Your task to perform on an android device: Go to settings Image 0: 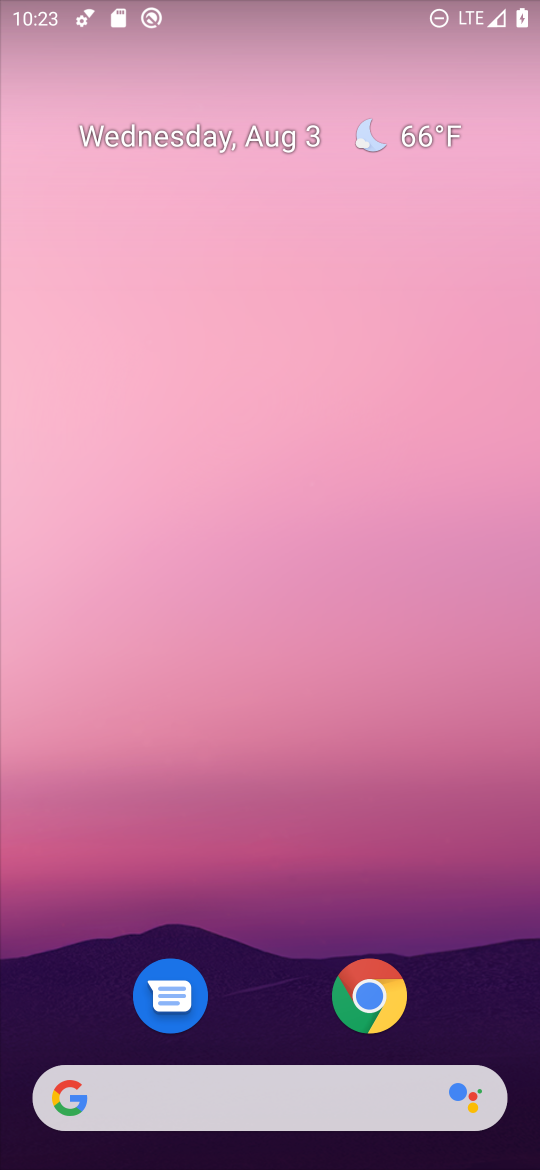
Step 0: drag from (309, 836) to (323, 107)
Your task to perform on an android device: Go to settings Image 1: 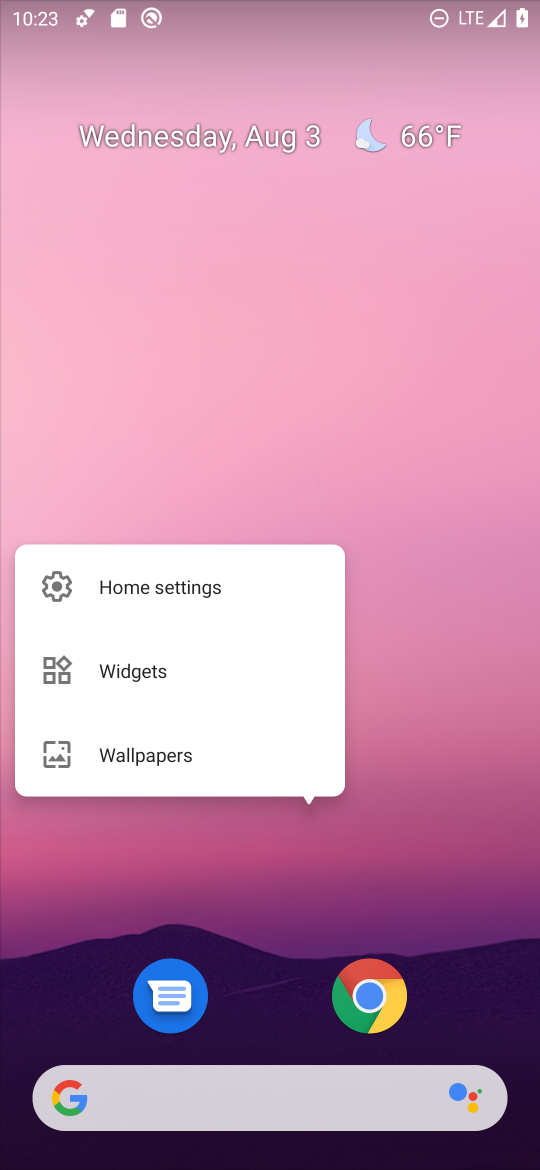
Step 1: drag from (297, 283) to (283, 61)
Your task to perform on an android device: Go to settings Image 2: 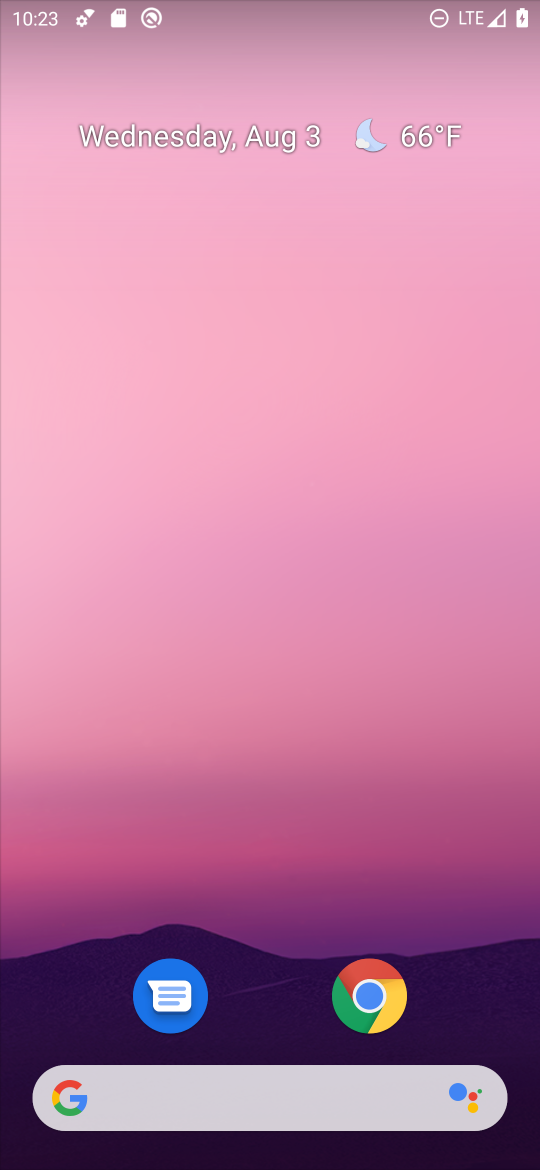
Step 2: drag from (332, 861) to (383, 7)
Your task to perform on an android device: Go to settings Image 3: 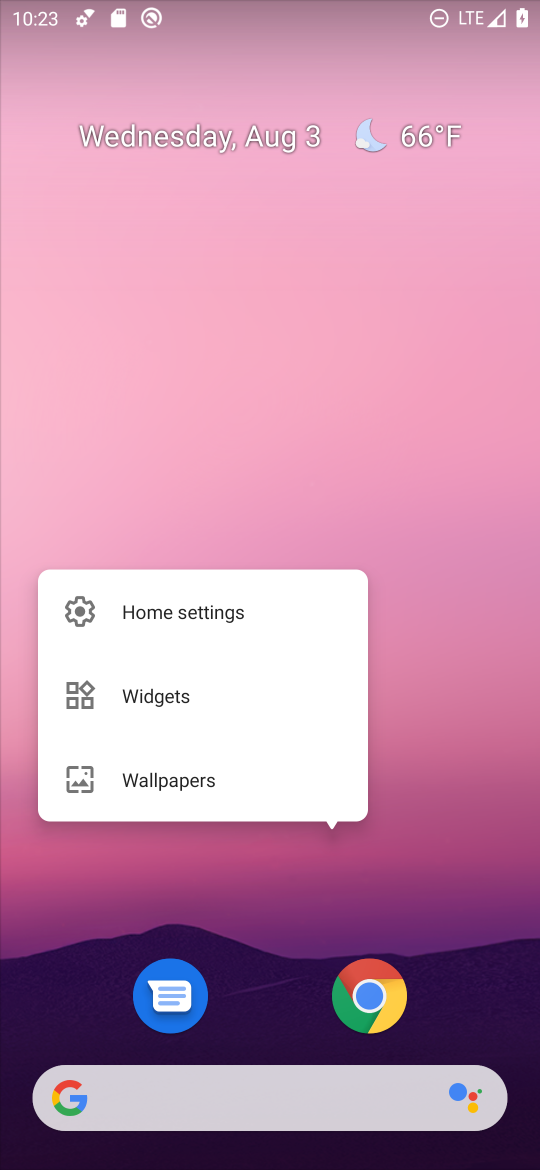
Step 3: click (316, 918)
Your task to perform on an android device: Go to settings Image 4: 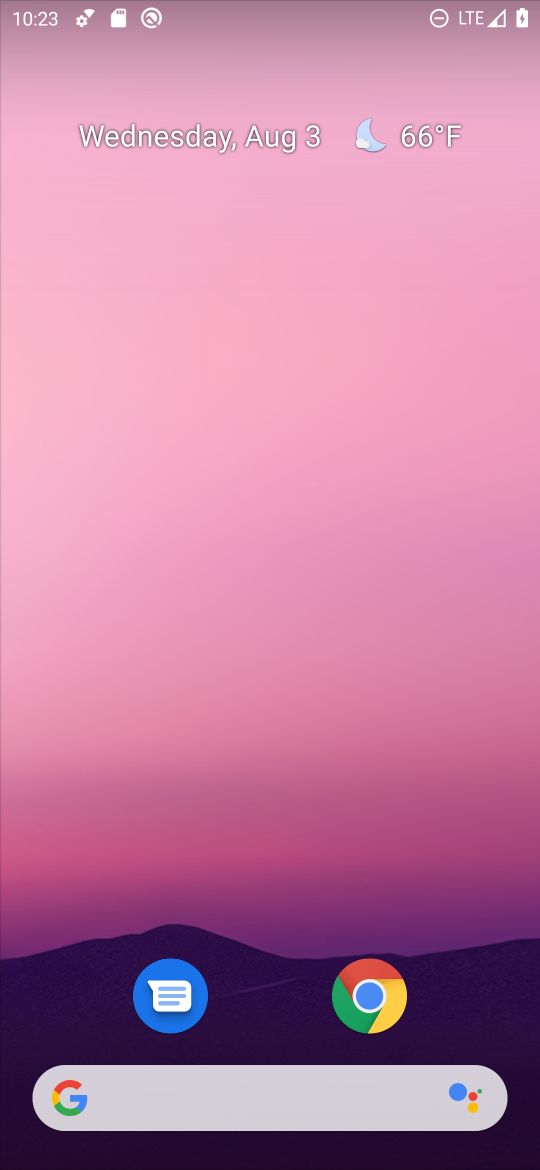
Step 4: drag from (297, 946) to (379, 8)
Your task to perform on an android device: Go to settings Image 5: 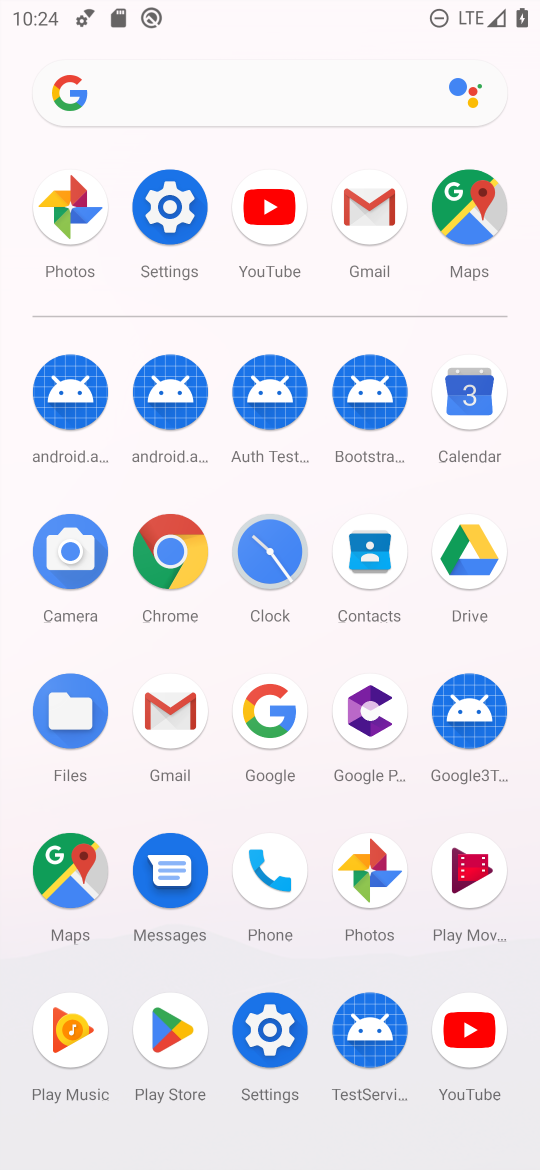
Step 5: click (174, 210)
Your task to perform on an android device: Go to settings Image 6: 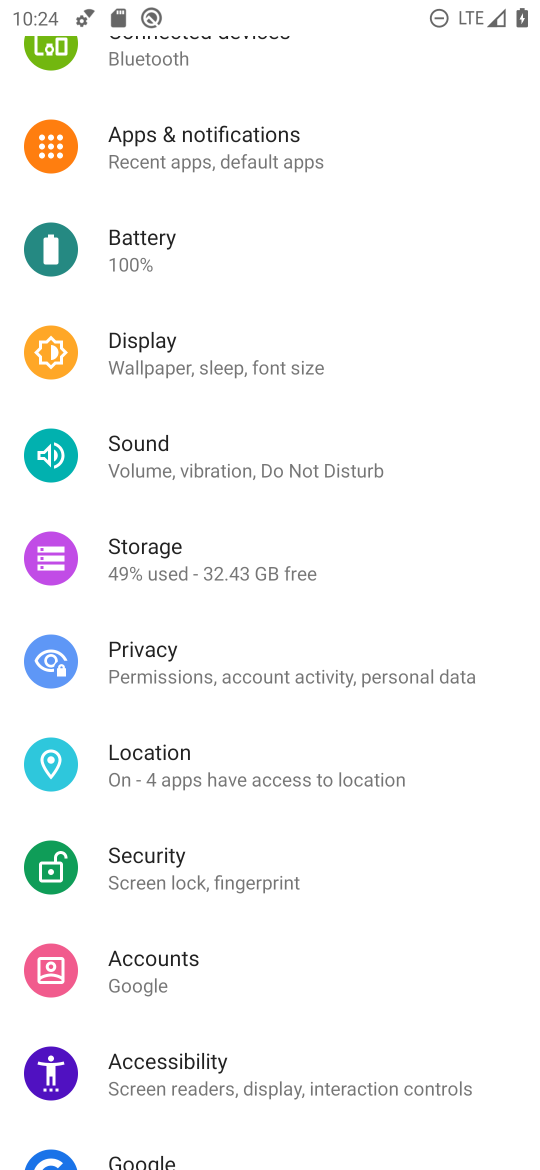
Step 6: task complete